Your task to perform on an android device: Open Google Image 0: 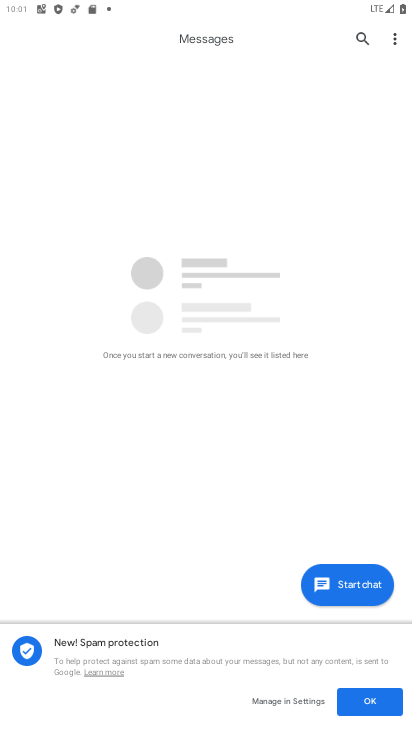
Step 0: press home button
Your task to perform on an android device: Open Google Image 1: 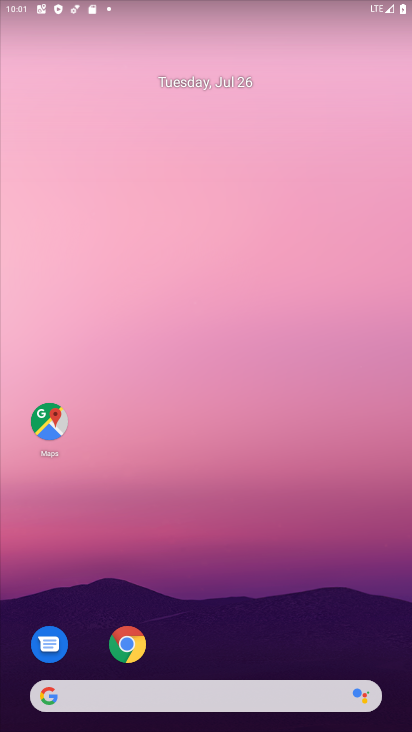
Step 1: drag from (234, 626) to (227, 3)
Your task to perform on an android device: Open Google Image 2: 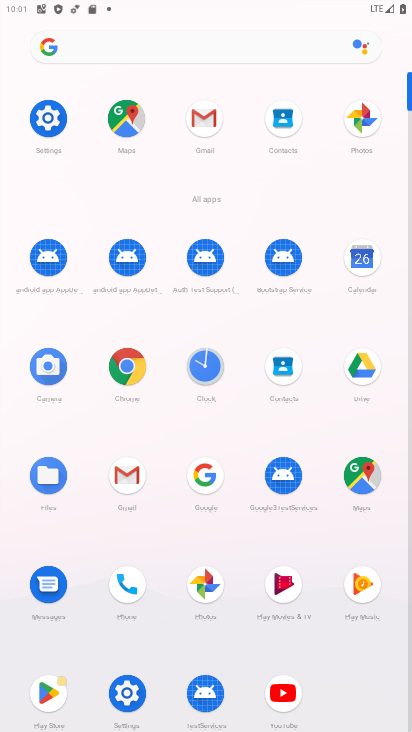
Step 2: click (201, 481)
Your task to perform on an android device: Open Google Image 3: 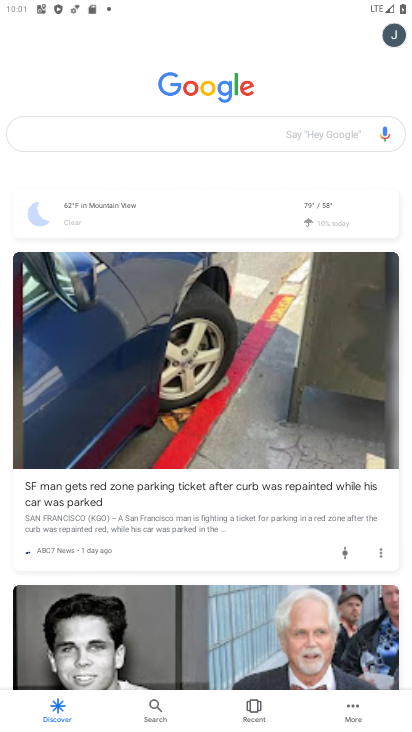
Step 3: task complete